Your task to perform on an android device: Go to ESPN.com Image 0: 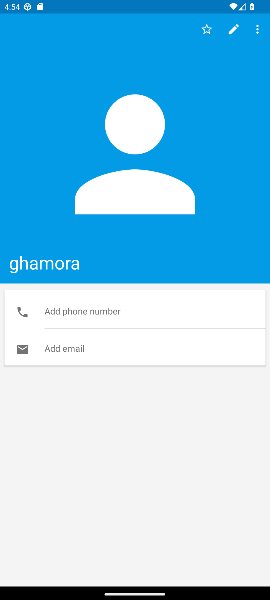
Step 0: press home button
Your task to perform on an android device: Go to ESPN.com Image 1: 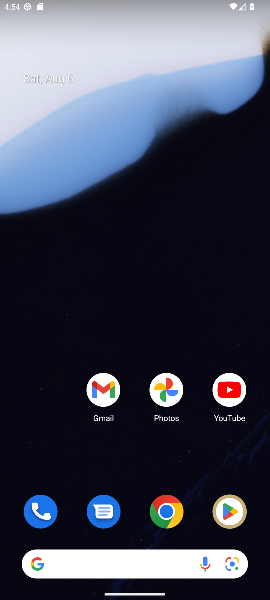
Step 1: click (174, 517)
Your task to perform on an android device: Go to ESPN.com Image 2: 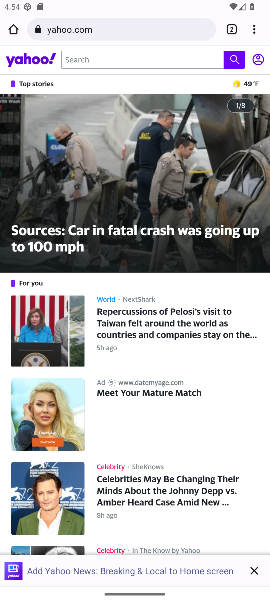
Step 2: click (90, 28)
Your task to perform on an android device: Go to ESPN.com Image 3: 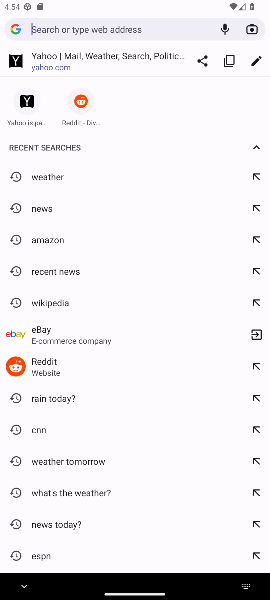
Step 3: type "ESPN.com"
Your task to perform on an android device: Go to ESPN.com Image 4: 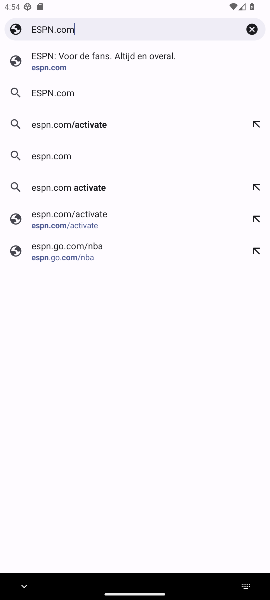
Step 4: click (118, 30)
Your task to perform on an android device: Go to ESPN.com Image 5: 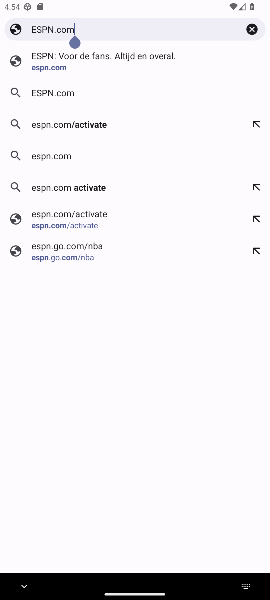
Step 5: click (41, 69)
Your task to perform on an android device: Go to ESPN.com Image 6: 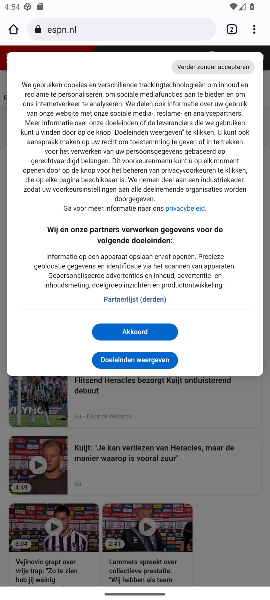
Step 6: task complete